Your task to perform on an android device: all mails in gmail Image 0: 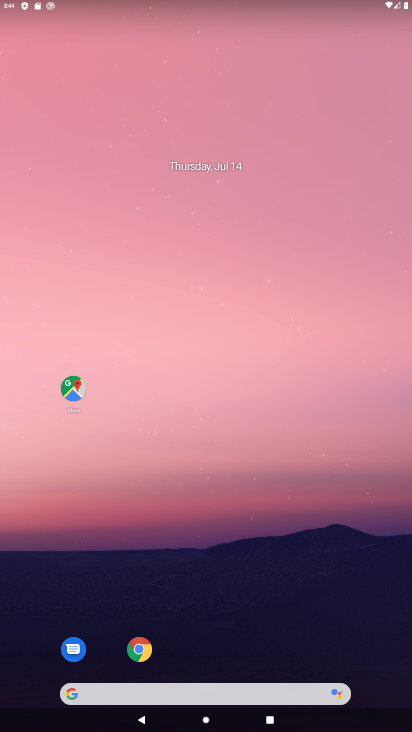
Step 0: drag from (168, 716) to (250, 260)
Your task to perform on an android device: all mails in gmail Image 1: 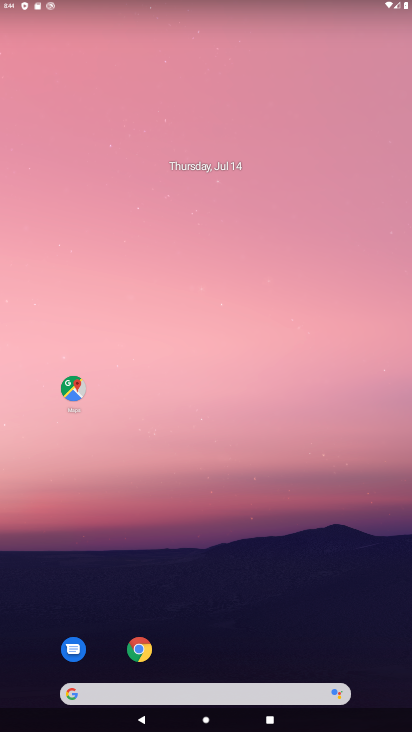
Step 1: click (305, 352)
Your task to perform on an android device: all mails in gmail Image 2: 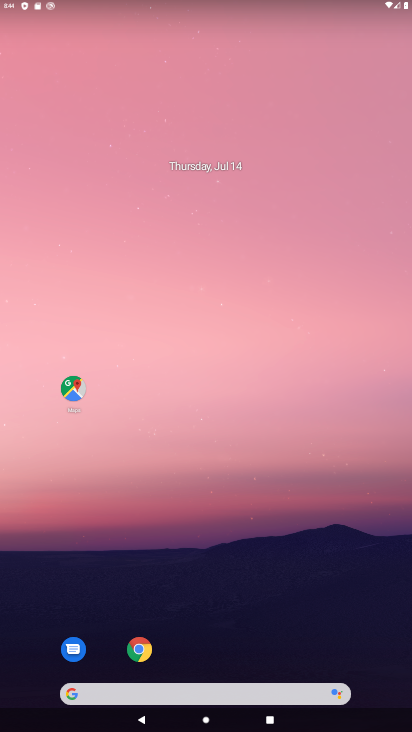
Step 2: drag from (209, 636) to (257, 321)
Your task to perform on an android device: all mails in gmail Image 3: 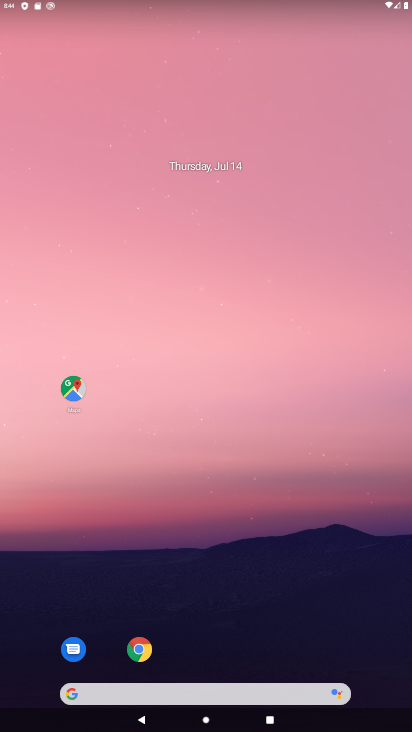
Step 3: drag from (220, 543) to (250, 238)
Your task to perform on an android device: all mails in gmail Image 4: 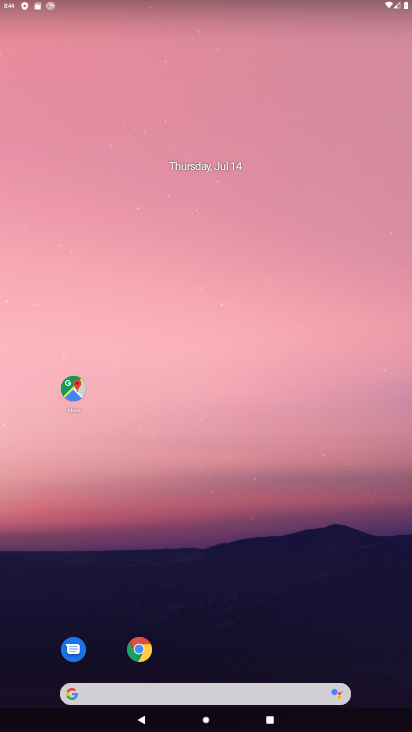
Step 4: drag from (226, 652) to (306, 98)
Your task to perform on an android device: all mails in gmail Image 5: 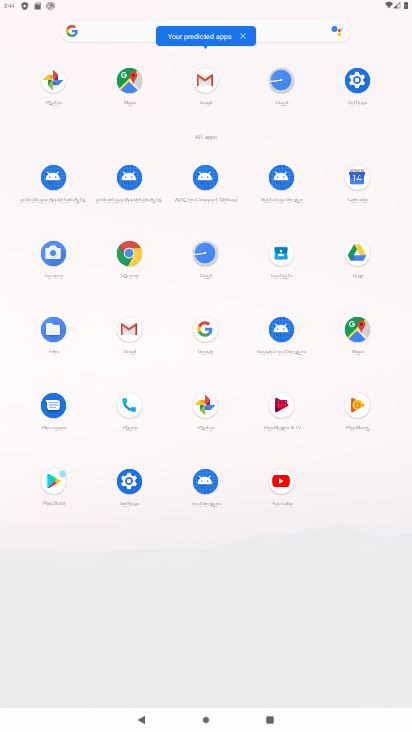
Step 5: click (131, 326)
Your task to perform on an android device: all mails in gmail Image 6: 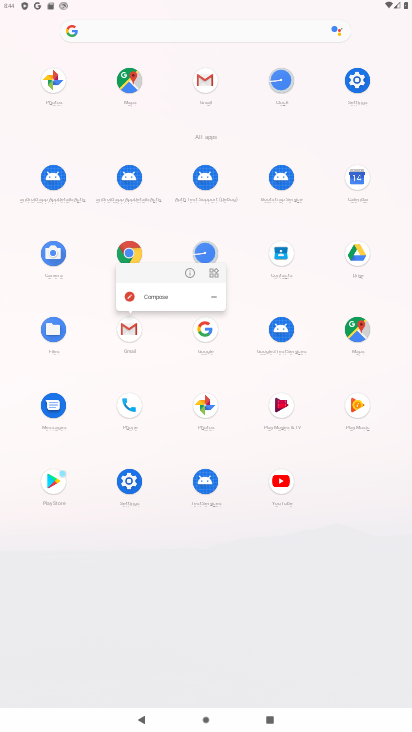
Step 6: click (130, 326)
Your task to perform on an android device: all mails in gmail Image 7: 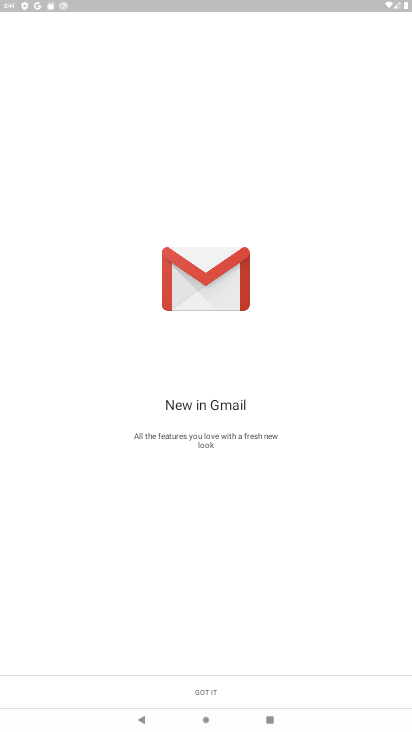
Step 7: click (202, 700)
Your task to perform on an android device: all mails in gmail Image 8: 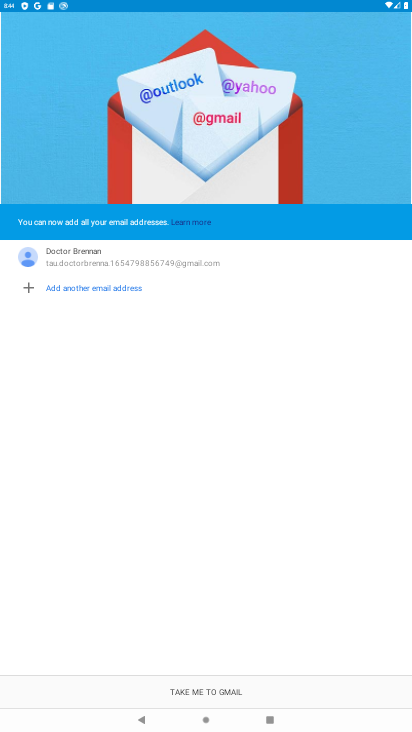
Step 8: click (205, 689)
Your task to perform on an android device: all mails in gmail Image 9: 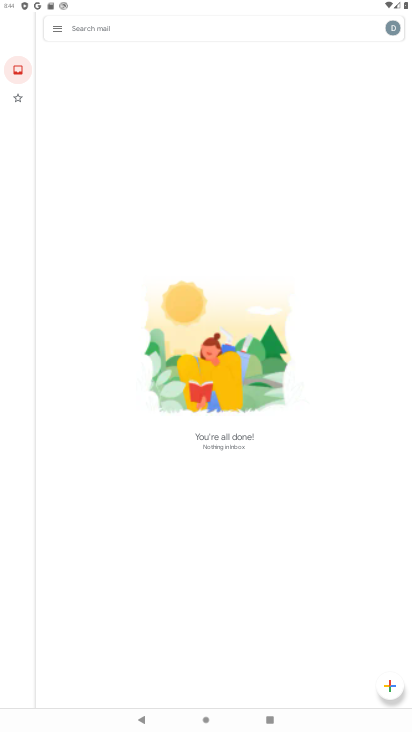
Step 9: click (60, 28)
Your task to perform on an android device: all mails in gmail Image 10: 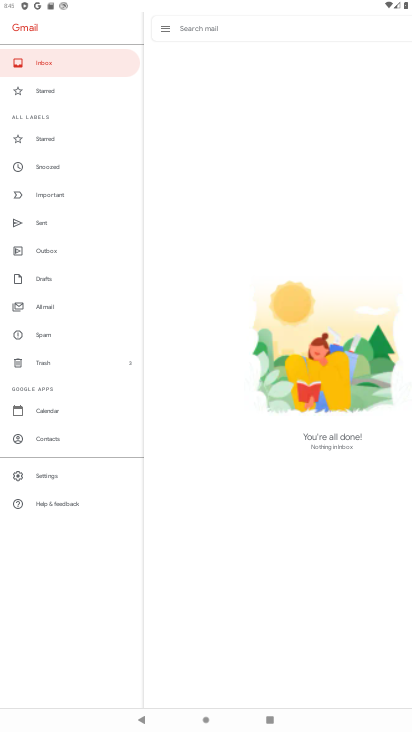
Step 10: click (60, 307)
Your task to perform on an android device: all mails in gmail Image 11: 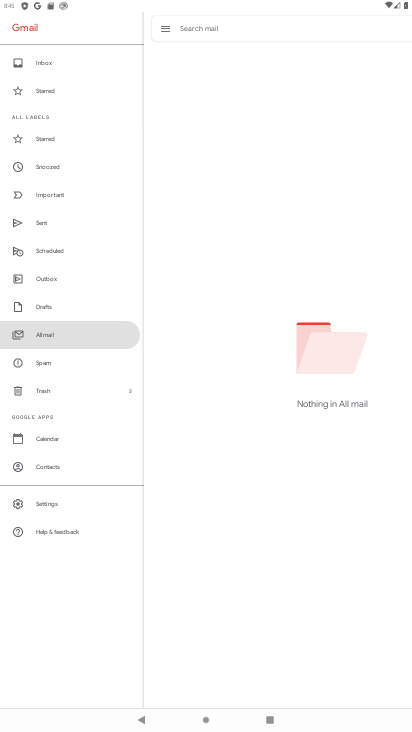
Step 11: task complete